Your task to perform on an android device: turn on location history Image 0: 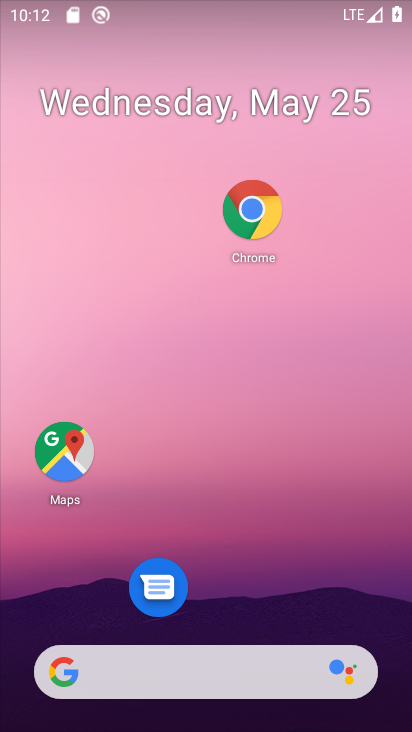
Step 0: drag from (252, 608) to (251, 191)
Your task to perform on an android device: turn on location history Image 1: 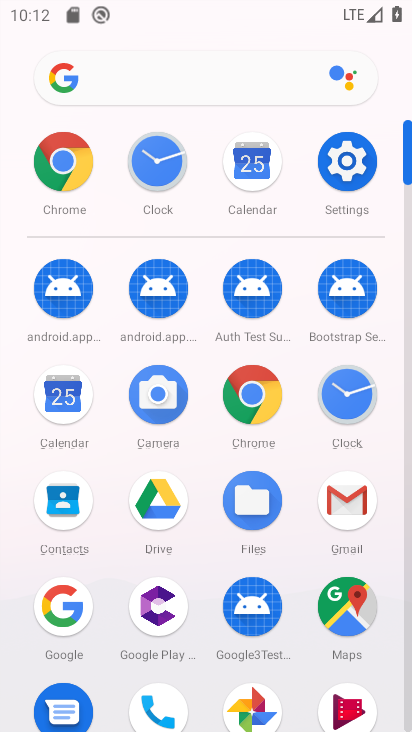
Step 1: click (343, 191)
Your task to perform on an android device: turn on location history Image 2: 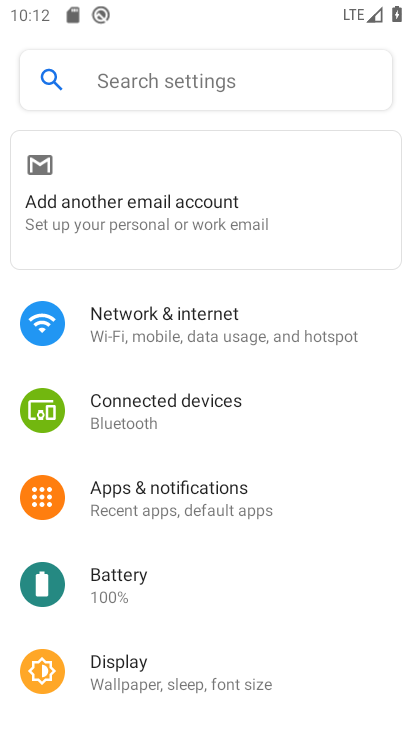
Step 2: drag from (197, 584) to (246, 325)
Your task to perform on an android device: turn on location history Image 3: 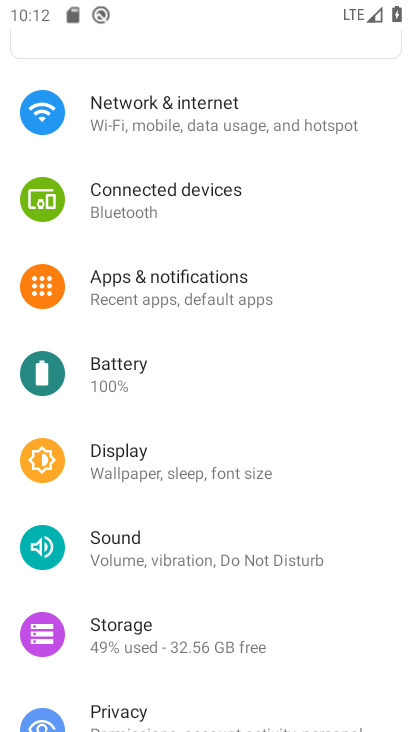
Step 3: drag from (218, 553) to (228, 311)
Your task to perform on an android device: turn on location history Image 4: 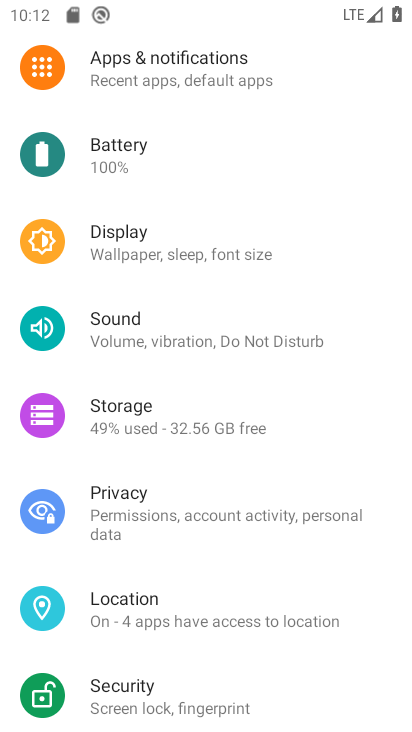
Step 4: click (198, 622)
Your task to perform on an android device: turn on location history Image 5: 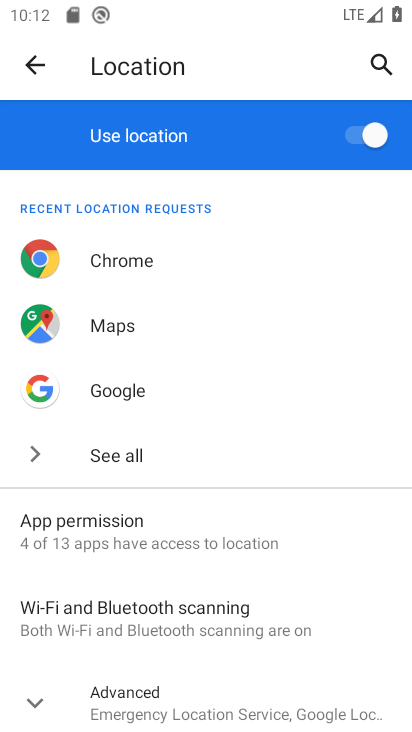
Step 5: drag from (173, 652) to (204, 433)
Your task to perform on an android device: turn on location history Image 6: 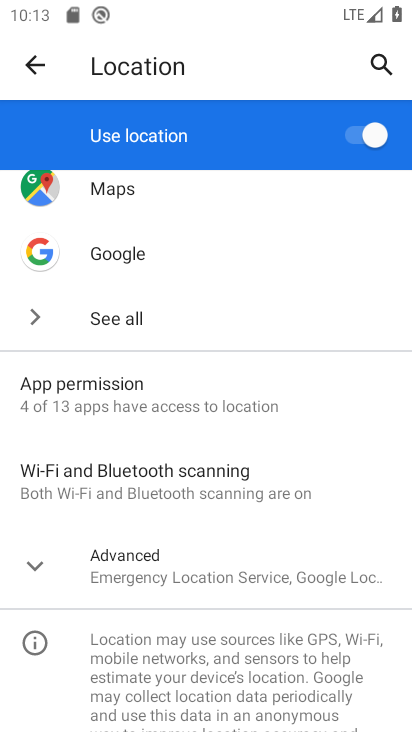
Step 6: click (142, 599)
Your task to perform on an android device: turn on location history Image 7: 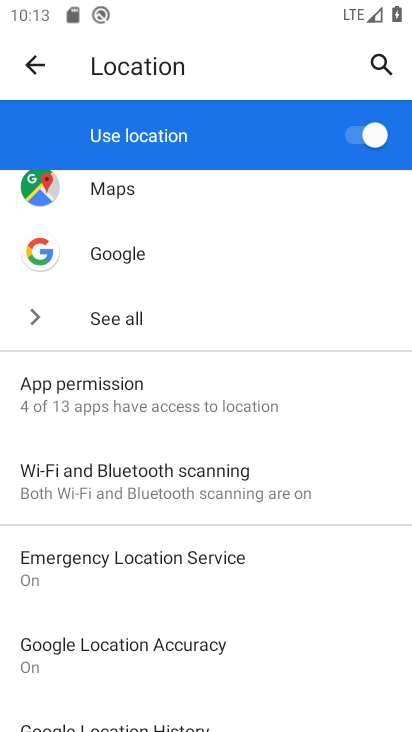
Step 7: drag from (177, 660) to (206, 361)
Your task to perform on an android device: turn on location history Image 8: 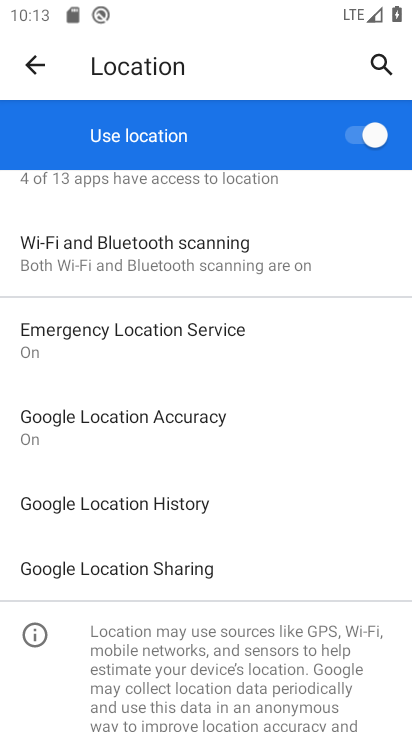
Step 8: click (95, 516)
Your task to perform on an android device: turn on location history Image 9: 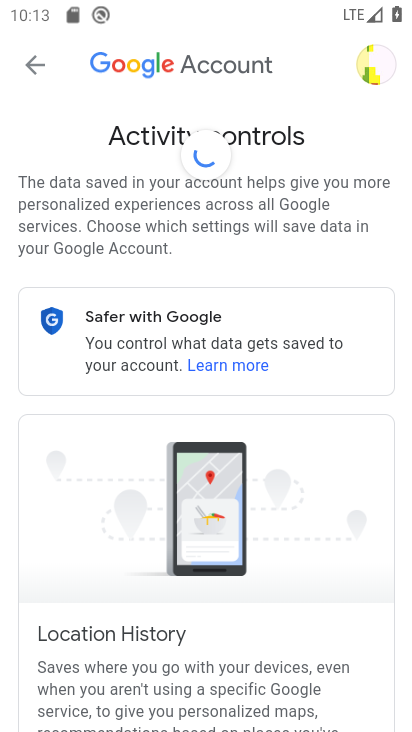
Step 9: task complete